Your task to perform on an android device: manage bookmarks in the chrome app Image 0: 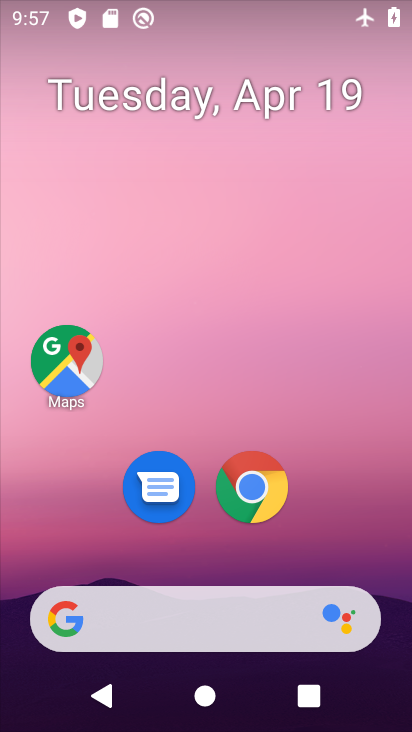
Step 0: click (256, 496)
Your task to perform on an android device: manage bookmarks in the chrome app Image 1: 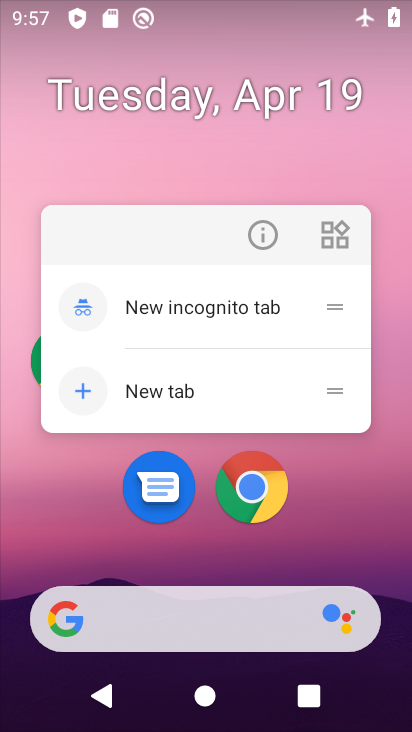
Step 1: click (256, 496)
Your task to perform on an android device: manage bookmarks in the chrome app Image 2: 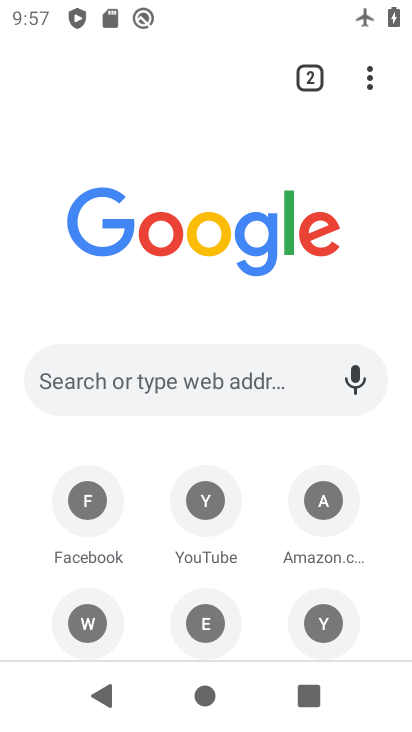
Step 2: click (365, 83)
Your task to perform on an android device: manage bookmarks in the chrome app Image 3: 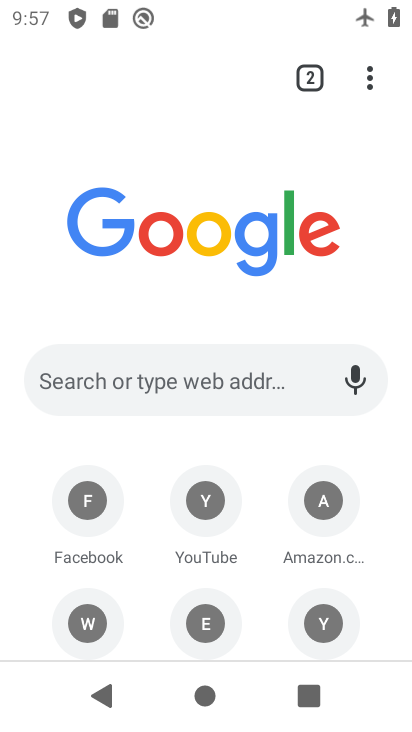
Step 3: click (365, 84)
Your task to perform on an android device: manage bookmarks in the chrome app Image 4: 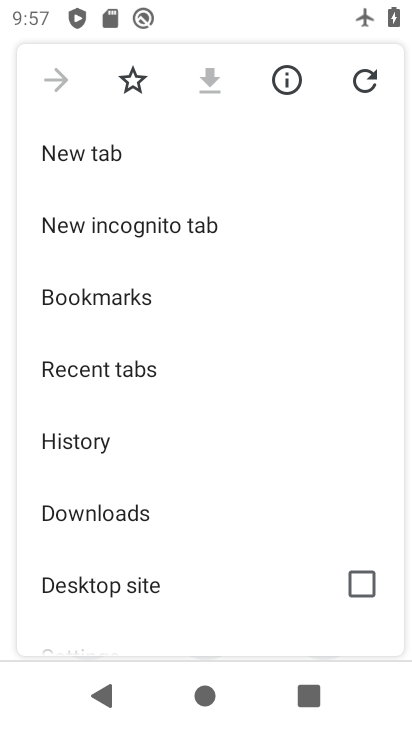
Step 4: click (79, 288)
Your task to perform on an android device: manage bookmarks in the chrome app Image 5: 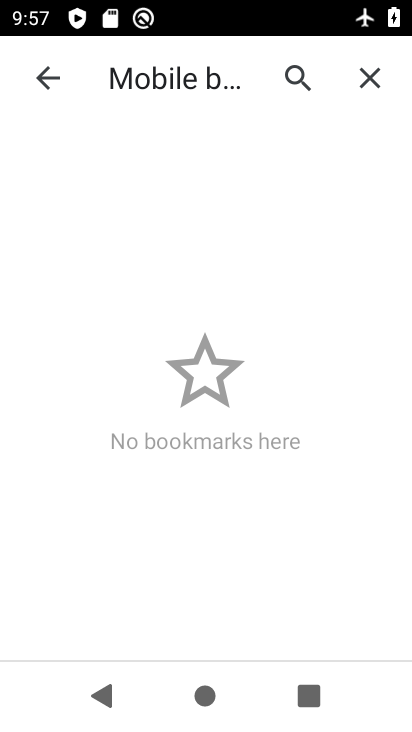
Step 5: click (32, 82)
Your task to perform on an android device: manage bookmarks in the chrome app Image 6: 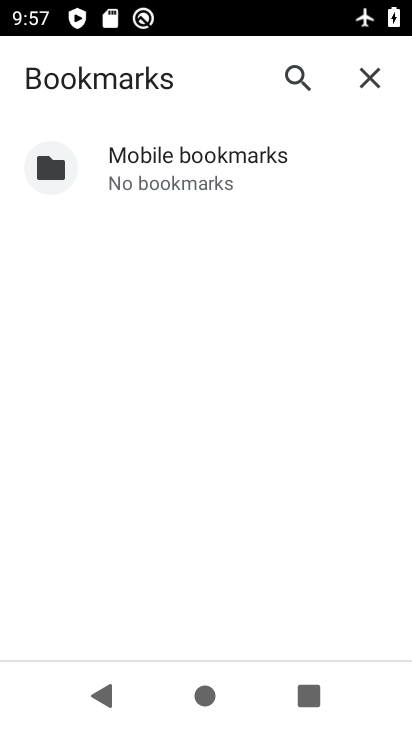
Step 6: click (369, 75)
Your task to perform on an android device: manage bookmarks in the chrome app Image 7: 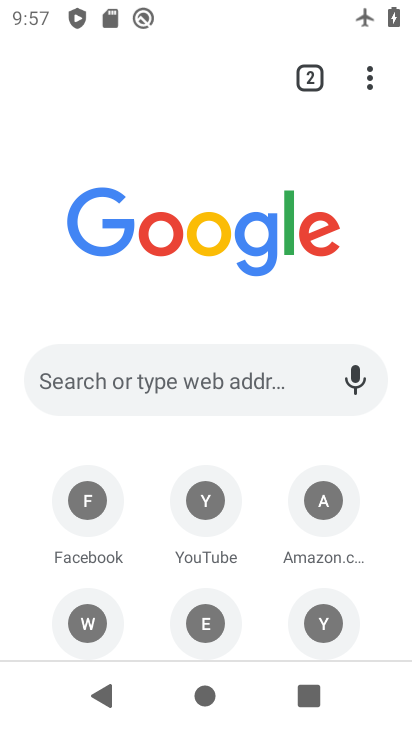
Step 7: click (98, 510)
Your task to perform on an android device: manage bookmarks in the chrome app Image 8: 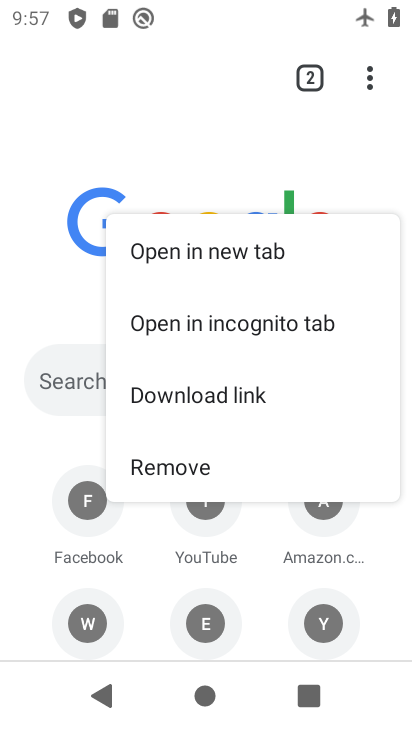
Step 8: click (73, 508)
Your task to perform on an android device: manage bookmarks in the chrome app Image 9: 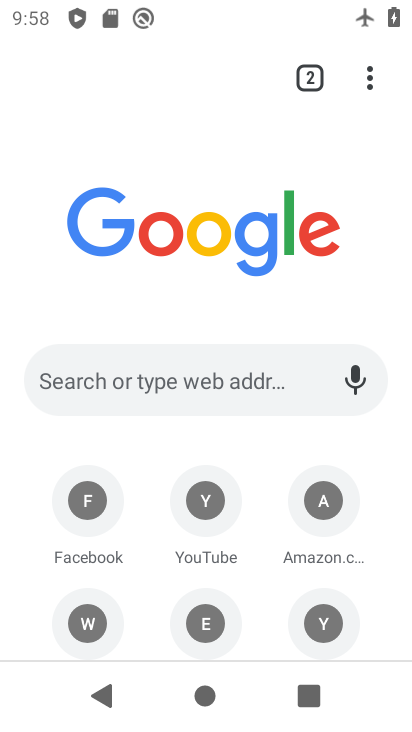
Step 9: click (92, 496)
Your task to perform on an android device: manage bookmarks in the chrome app Image 10: 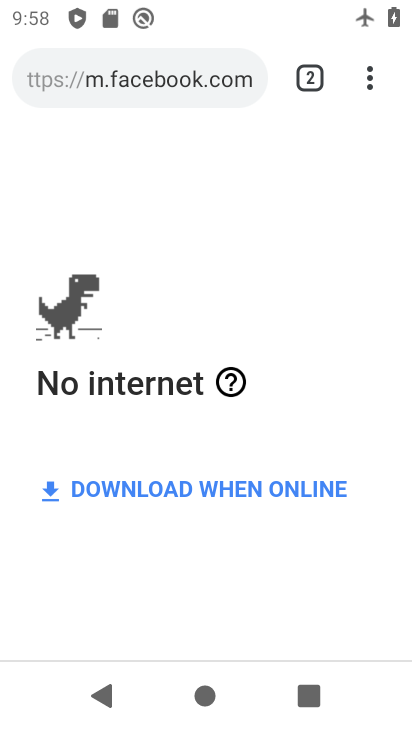
Step 10: click (381, 76)
Your task to perform on an android device: manage bookmarks in the chrome app Image 11: 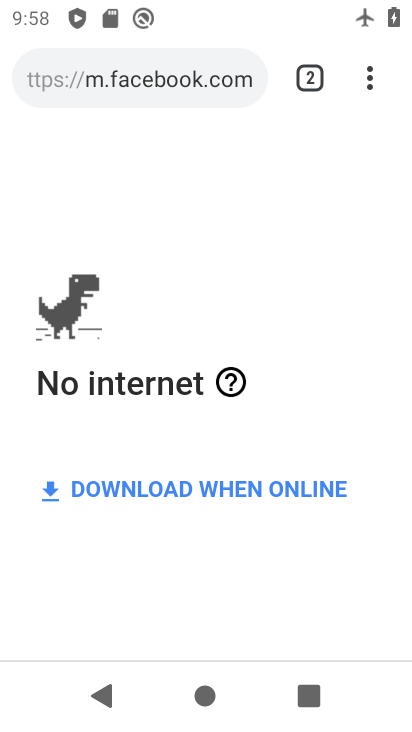
Step 11: click (379, 68)
Your task to perform on an android device: manage bookmarks in the chrome app Image 12: 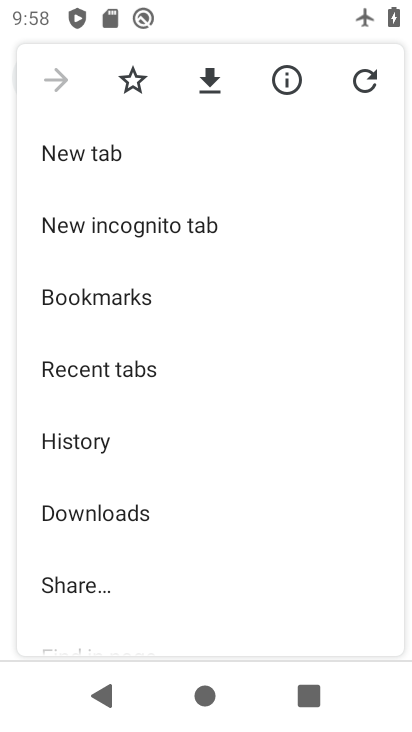
Step 12: click (132, 84)
Your task to perform on an android device: manage bookmarks in the chrome app Image 13: 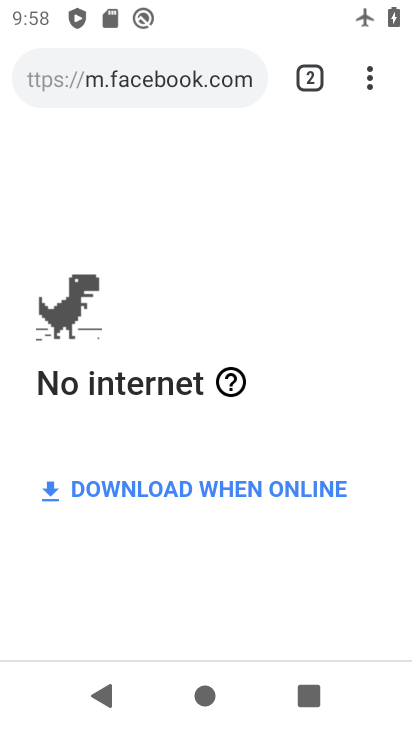
Step 13: task complete